Your task to perform on an android device: Go to Wikipedia Image 0: 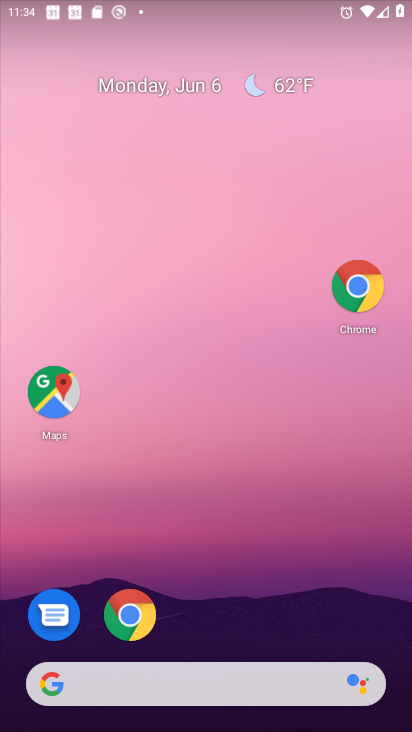
Step 0: click (31, 156)
Your task to perform on an android device: Go to Wikipedia Image 1: 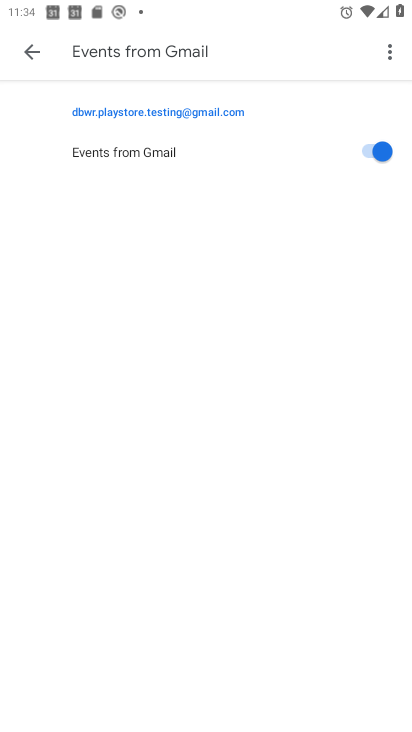
Step 1: click (35, 61)
Your task to perform on an android device: Go to Wikipedia Image 2: 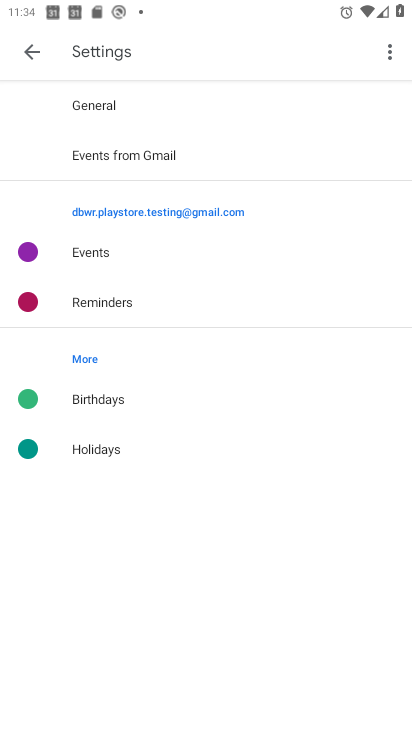
Step 2: click (25, 52)
Your task to perform on an android device: Go to Wikipedia Image 3: 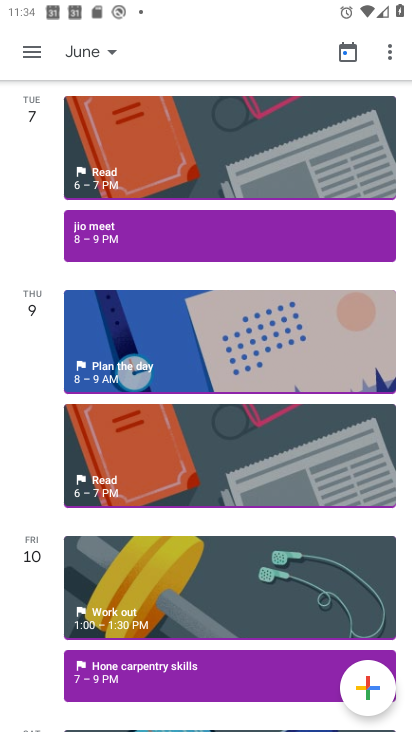
Step 3: press back button
Your task to perform on an android device: Go to Wikipedia Image 4: 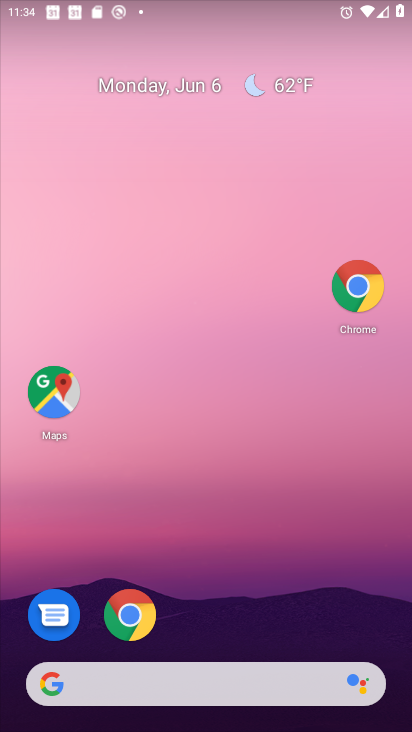
Step 4: drag from (199, 485) to (393, 581)
Your task to perform on an android device: Go to Wikipedia Image 5: 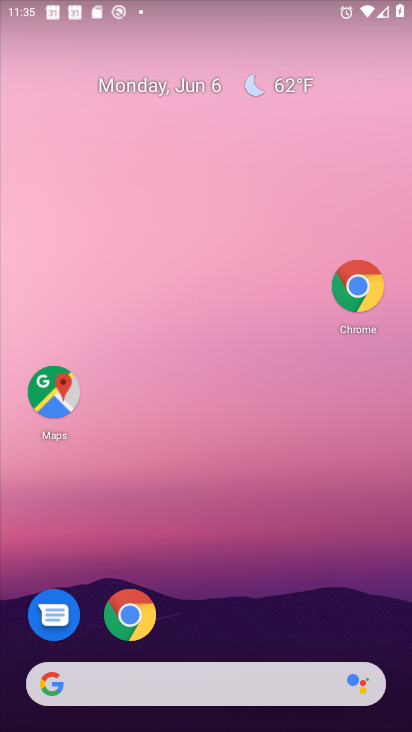
Step 5: drag from (251, 649) to (73, 58)
Your task to perform on an android device: Go to Wikipedia Image 6: 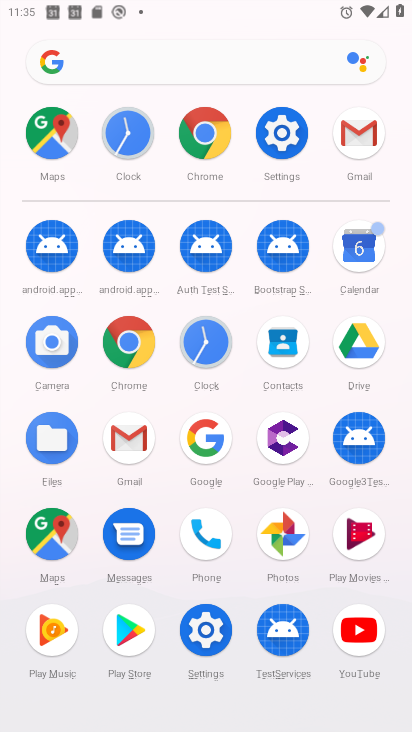
Step 6: drag from (172, 316) to (154, 186)
Your task to perform on an android device: Go to Wikipedia Image 7: 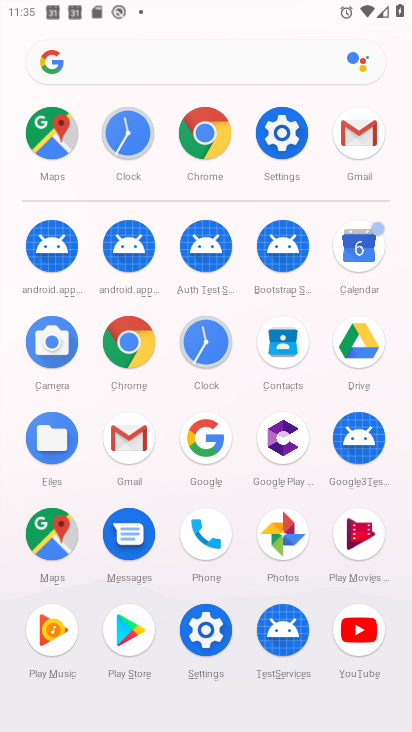
Step 7: click (197, 133)
Your task to perform on an android device: Go to Wikipedia Image 8: 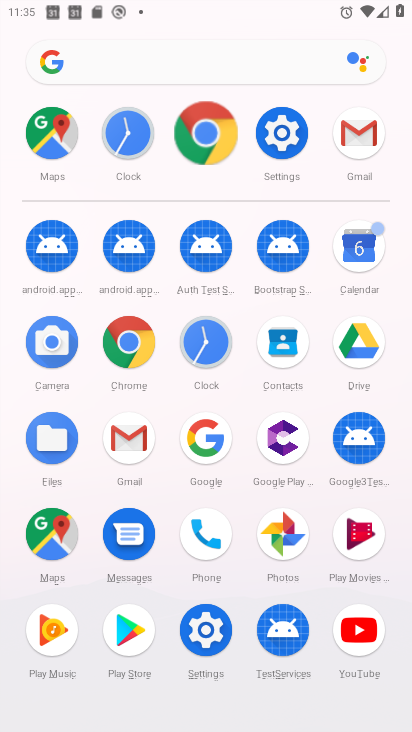
Step 8: click (197, 133)
Your task to perform on an android device: Go to Wikipedia Image 9: 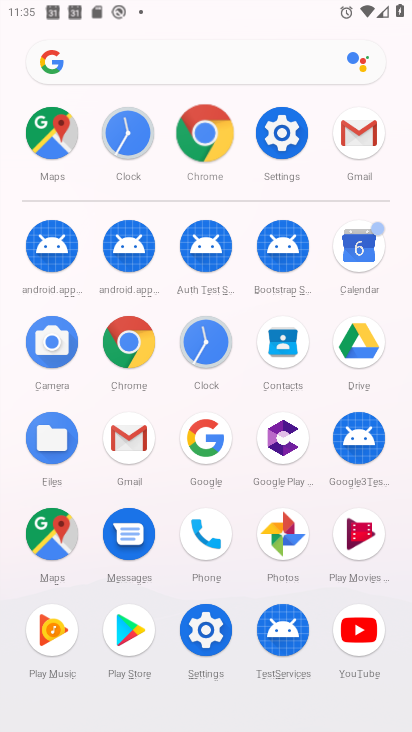
Step 9: click (197, 133)
Your task to perform on an android device: Go to Wikipedia Image 10: 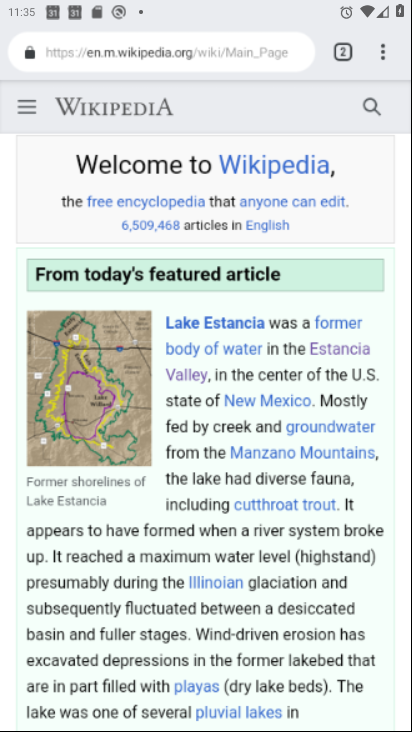
Step 10: click (197, 132)
Your task to perform on an android device: Go to Wikipedia Image 11: 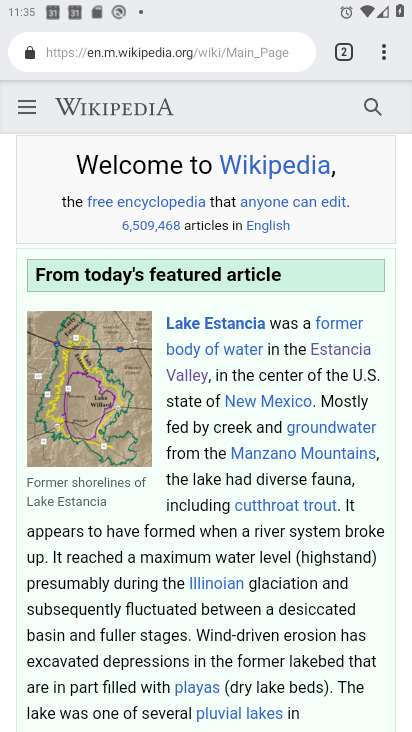
Step 11: task complete